Your task to perform on an android device: change keyboard looks Image 0: 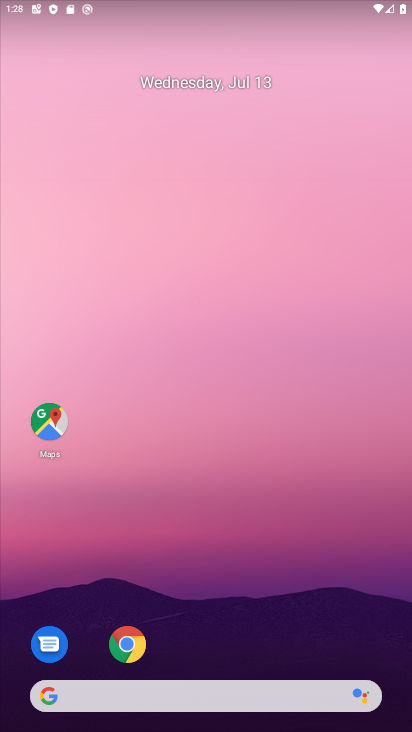
Step 0: drag from (310, 611) to (294, 165)
Your task to perform on an android device: change keyboard looks Image 1: 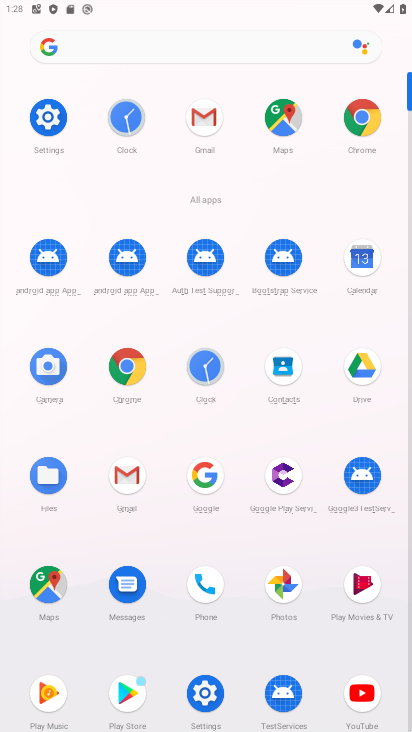
Step 1: click (39, 118)
Your task to perform on an android device: change keyboard looks Image 2: 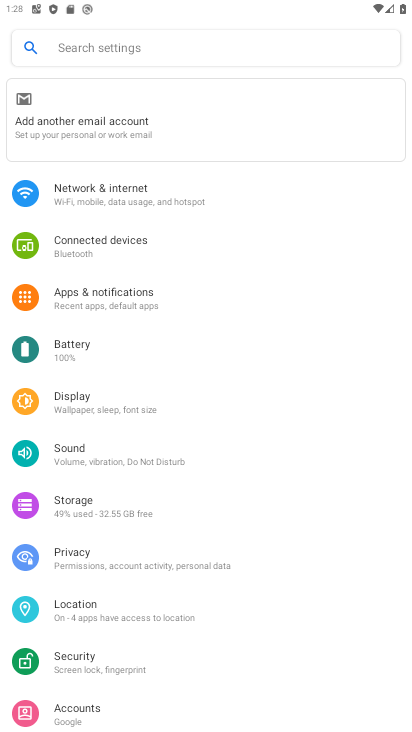
Step 2: drag from (128, 710) to (200, 351)
Your task to perform on an android device: change keyboard looks Image 3: 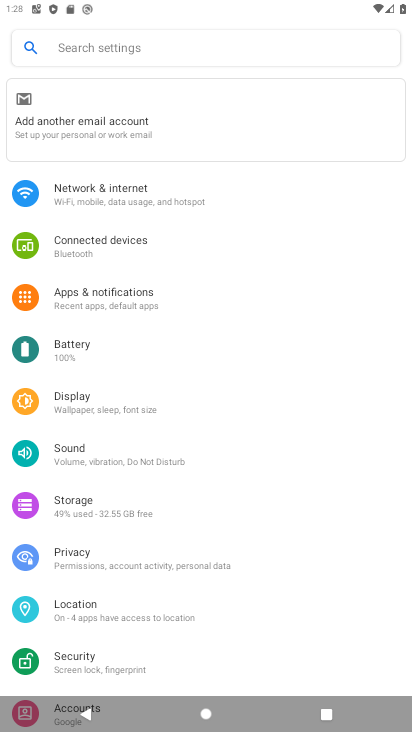
Step 3: drag from (113, 578) to (100, 380)
Your task to perform on an android device: change keyboard looks Image 4: 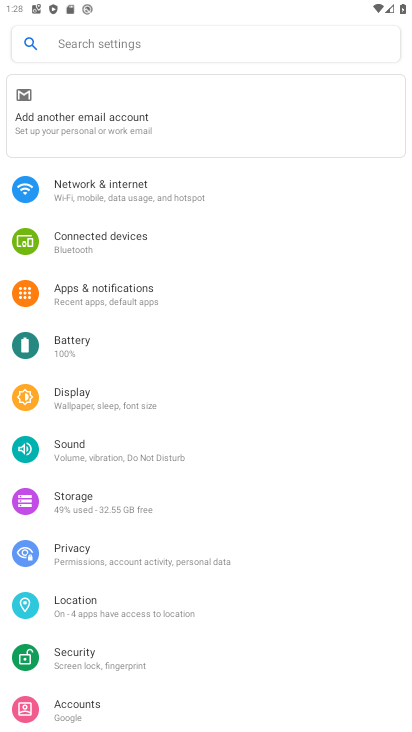
Step 4: drag from (123, 572) to (203, 133)
Your task to perform on an android device: change keyboard looks Image 5: 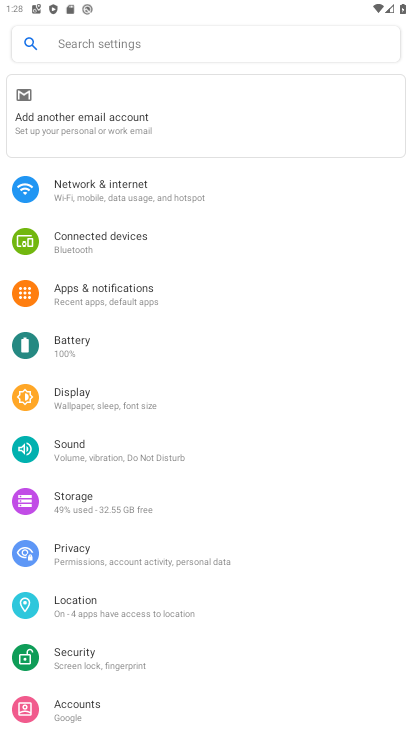
Step 5: drag from (239, 574) to (260, 296)
Your task to perform on an android device: change keyboard looks Image 6: 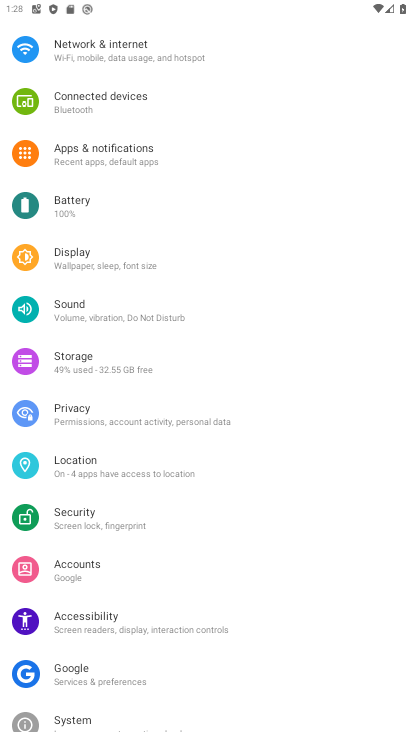
Step 6: click (160, 713)
Your task to perform on an android device: change keyboard looks Image 7: 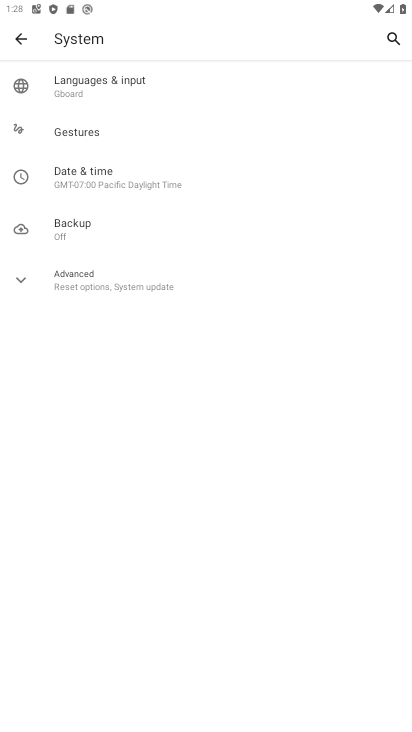
Step 7: click (80, 73)
Your task to perform on an android device: change keyboard looks Image 8: 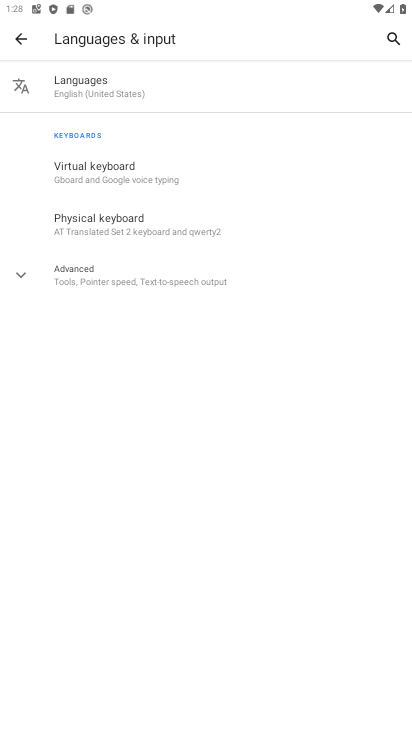
Step 8: click (75, 171)
Your task to perform on an android device: change keyboard looks Image 9: 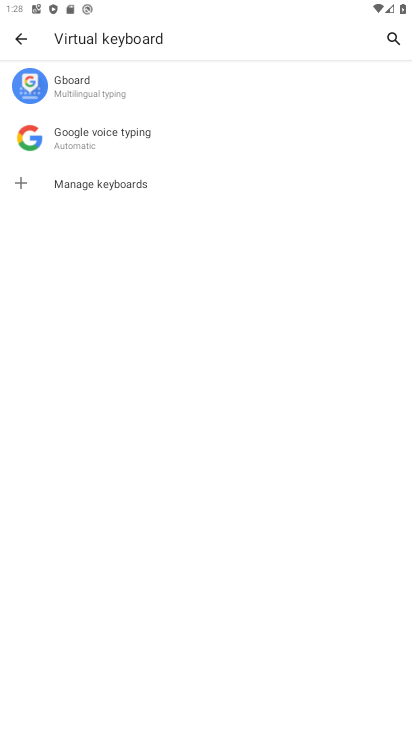
Step 9: click (121, 89)
Your task to perform on an android device: change keyboard looks Image 10: 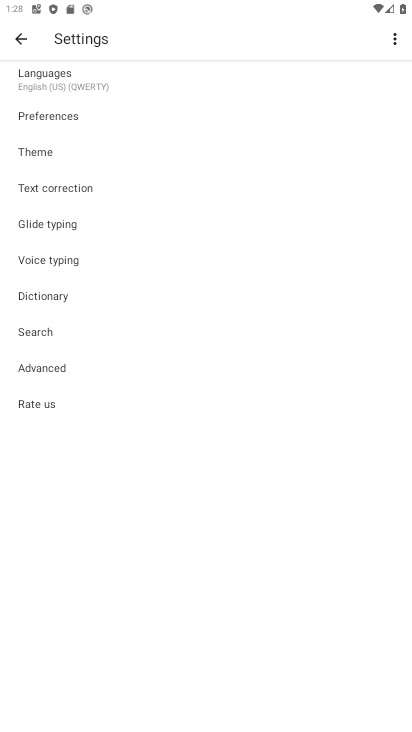
Step 10: click (35, 153)
Your task to perform on an android device: change keyboard looks Image 11: 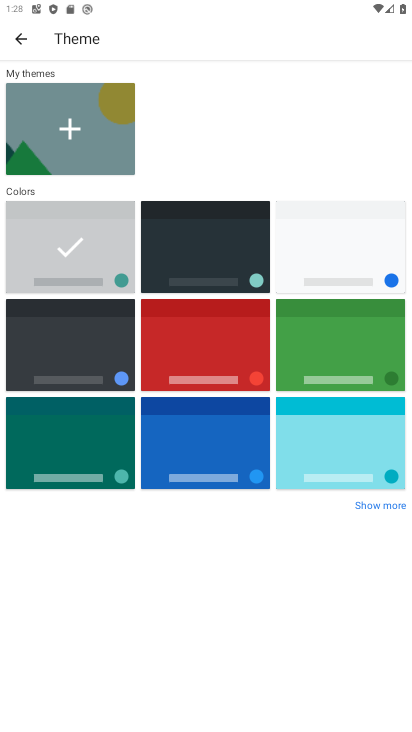
Step 11: click (298, 428)
Your task to perform on an android device: change keyboard looks Image 12: 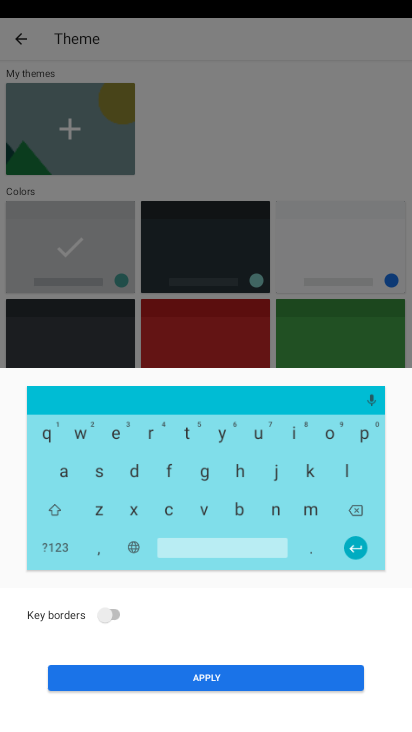
Step 12: click (246, 676)
Your task to perform on an android device: change keyboard looks Image 13: 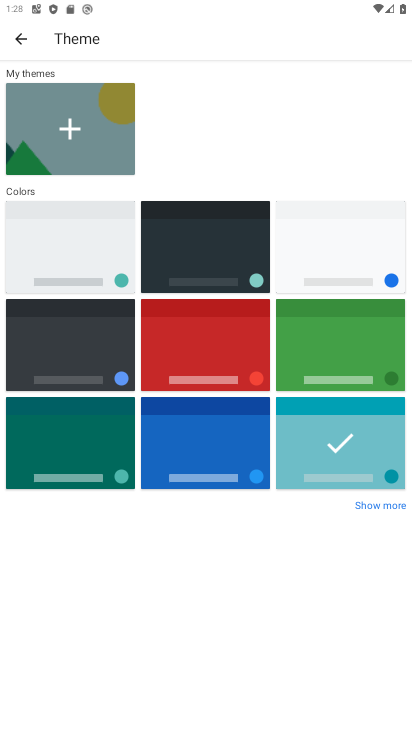
Step 13: task complete